Your task to perform on an android device: turn on the 24-hour format for clock Image 0: 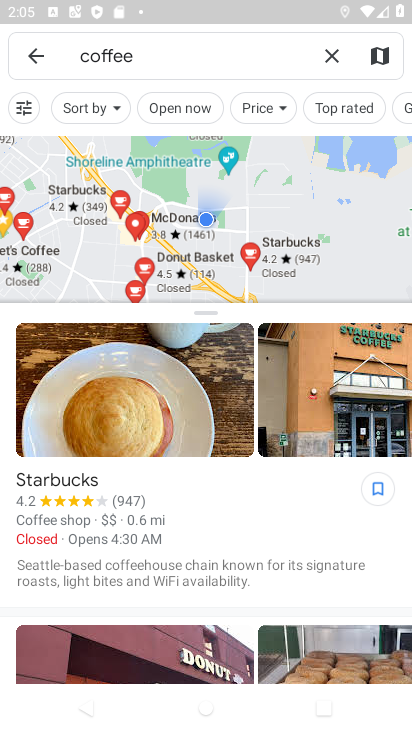
Step 0: press home button
Your task to perform on an android device: turn on the 24-hour format for clock Image 1: 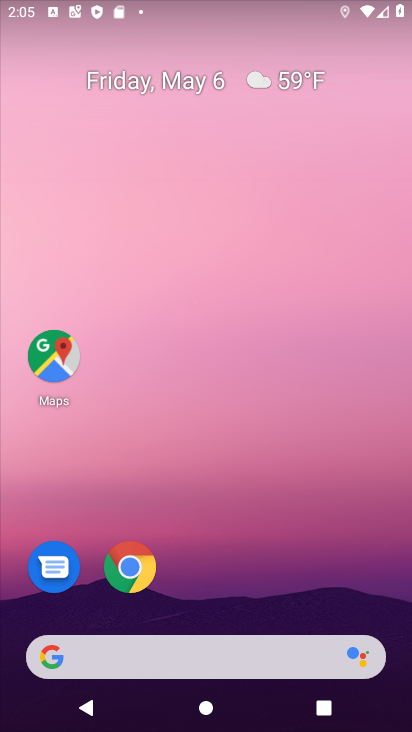
Step 1: drag from (388, 622) to (312, 22)
Your task to perform on an android device: turn on the 24-hour format for clock Image 2: 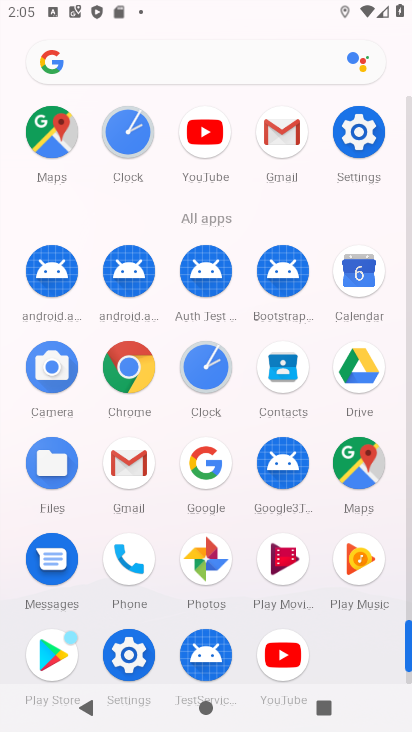
Step 2: click (203, 368)
Your task to perform on an android device: turn on the 24-hour format for clock Image 3: 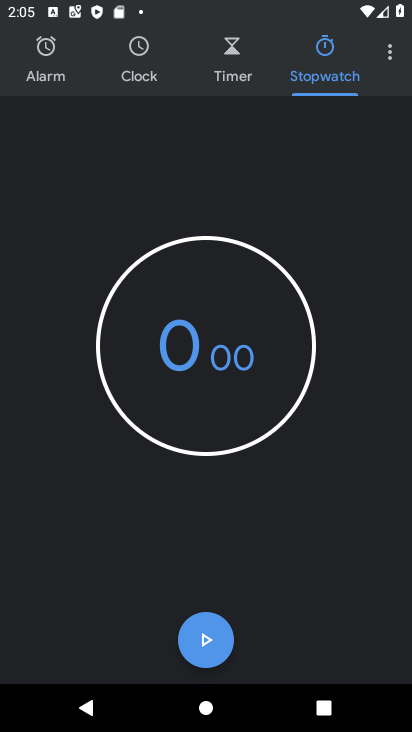
Step 3: click (386, 57)
Your task to perform on an android device: turn on the 24-hour format for clock Image 4: 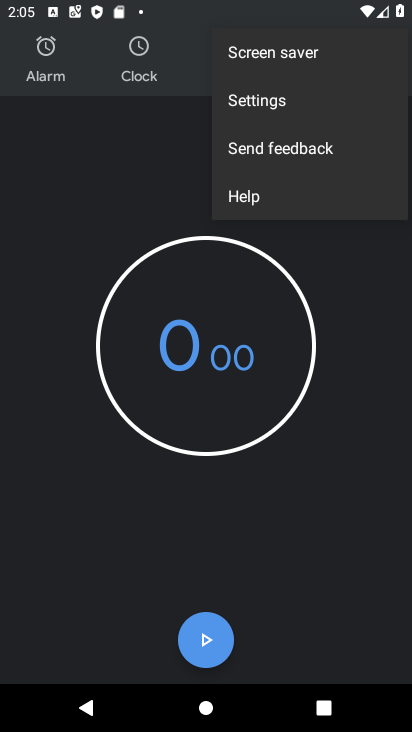
Step 4: click (253, 97)
Your task to perform on an android device: turn on the 24-hour format for clock Image 5: 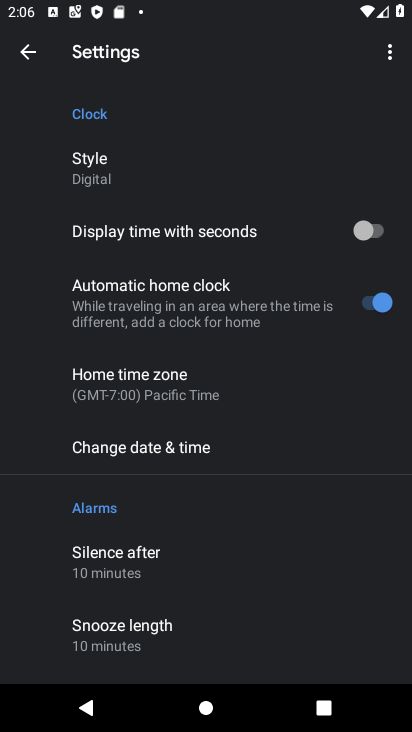
Step 5: click (151, 448)
Your task to perform on an android device: turn on the 24-hour format for clock Image 6: 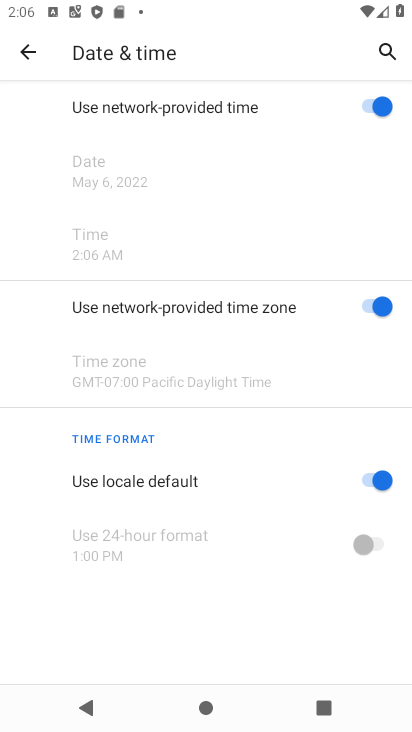
Step 6: click (363, 479)
Your task to perform on an android device: turn on the 24-hour format for clock Image 7: 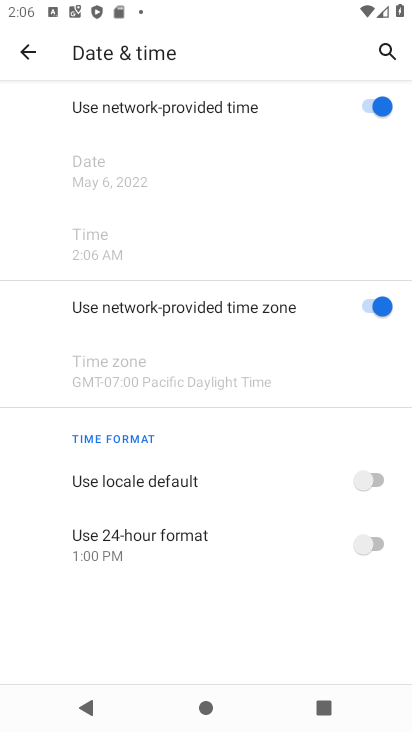
Step 7: click (377, 543)
Your task to perform on an android device: turn on the 24-hour format for clock Image 8: 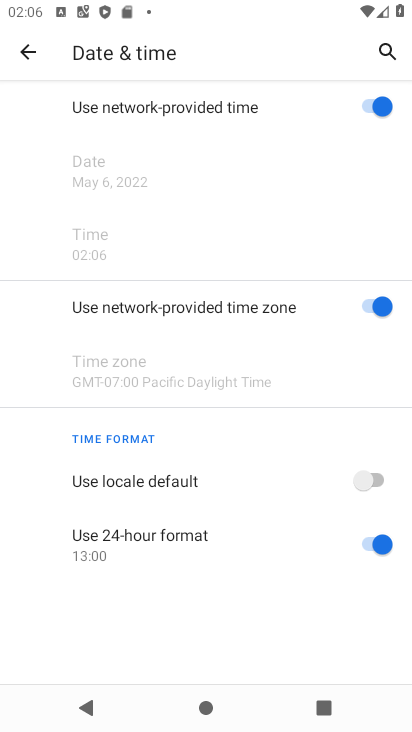
Step 8: task complete